Your task to perform on an android device: Open the phone app and click the voicemail tab. Image 0: 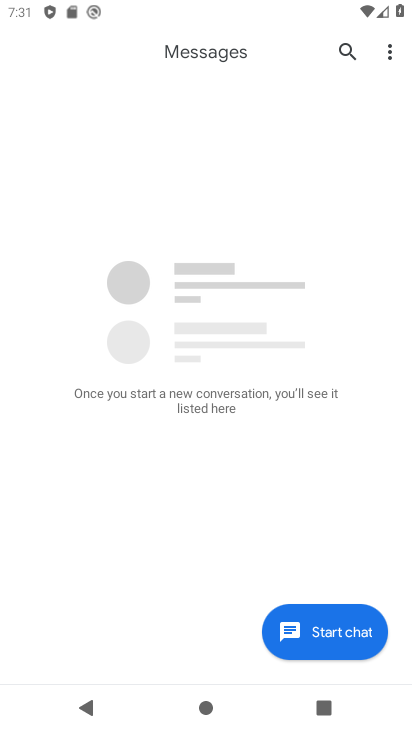
Step 0: press home button
Your task to perform on an android device: Open the phone app and click the voicemail tab. Image 1: 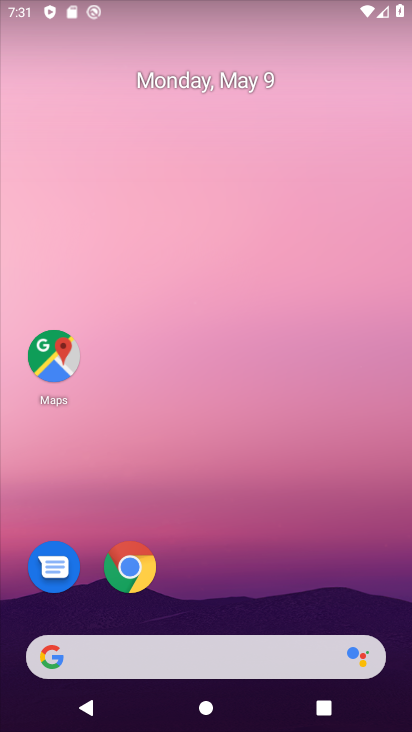
Step 1: drag from (229, 501) to (259, 70)
Your task to perform on an android device: Open the phone app and click the voicemail tab. Image 2: 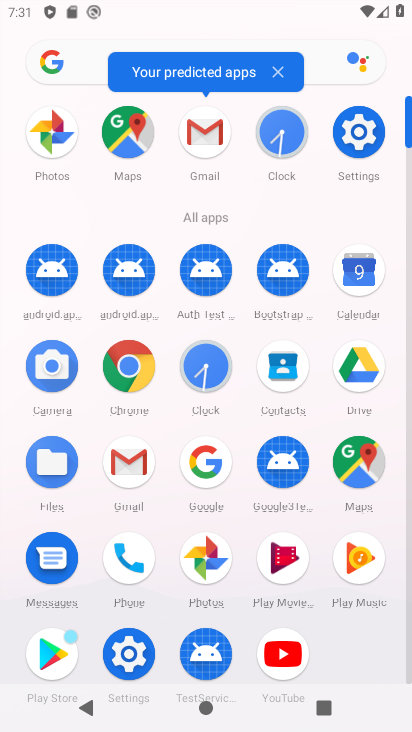
Step 2: click (126, 551)
Your task to perform on an android device: Open the phone app and click the voicemail tab. Image 3: 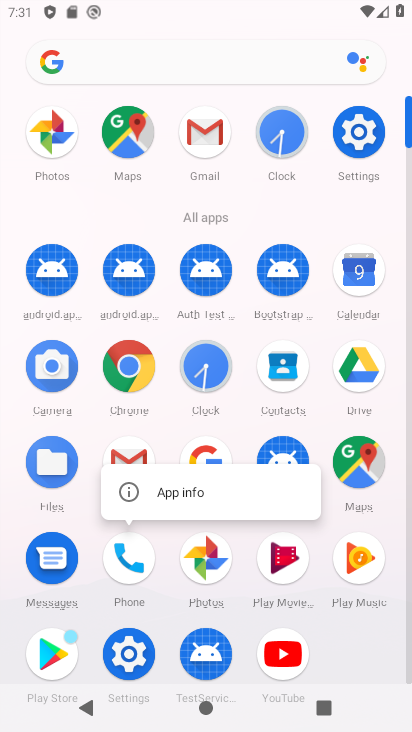
Step 3: click (126, 551)
Your task to perform on an android device: Open the phone app and click the voicemail tab. Image 4: 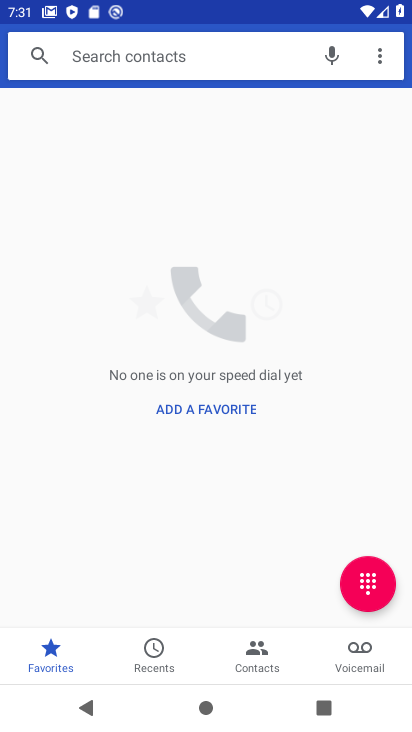
Step 4: click (363, 645)
Your task to perform on an android device: Open the phone app and click the voicemail tab. Image 5: 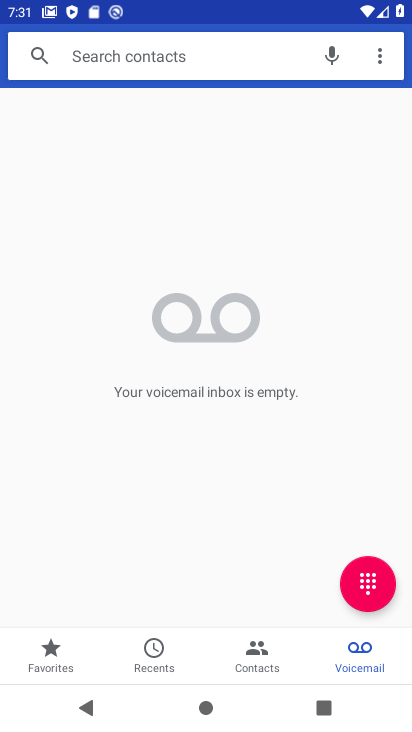
Step 5: task complete